Your task to perform on an android device: What's on my calendar tomorrow? Image 0: 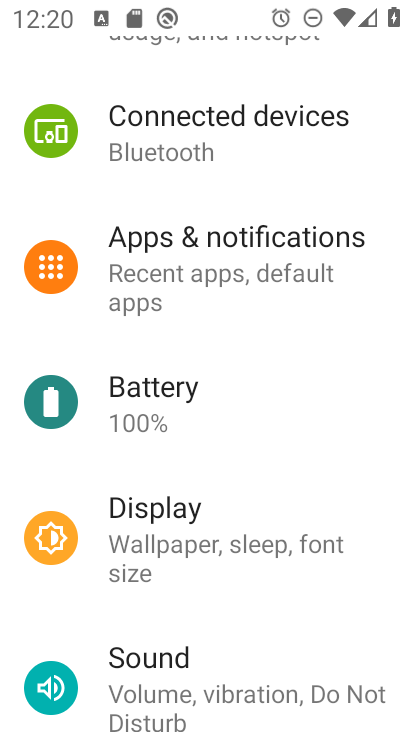
Step 0: press home button
Your task to perform on an android device: What's on my calendar tomorrow? Image 1: 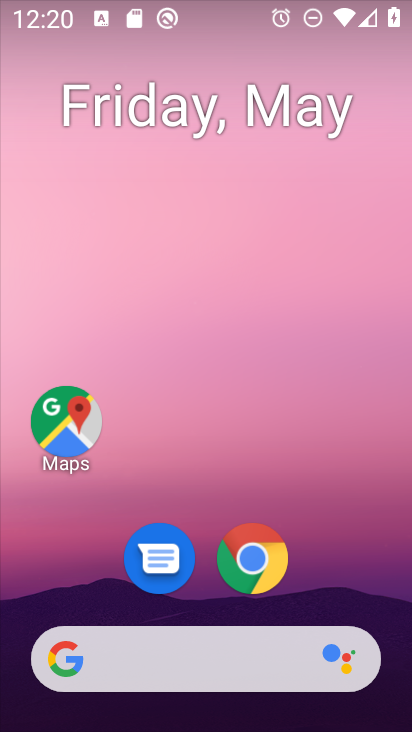
Step 1: drag from (387, 605) to (322, 58)
Your task to perform on an android device: What's on my calendar tomorrow? Image 2: 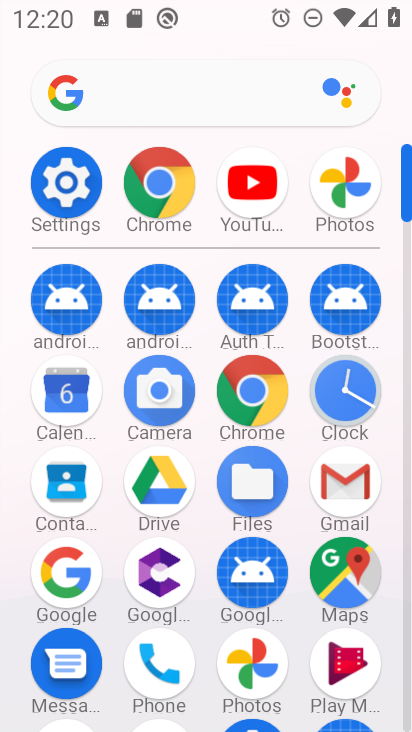
Step 2: click (65, 393)
Your task to perform on an android device: What's on my calendar tomorrow? Image 3: 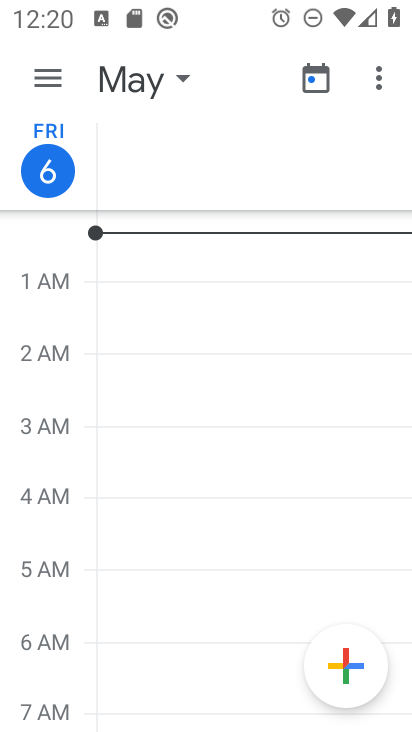
Step 3: click (45, 74)
Your task to perform on an android device: What's on my calendar tomorrow? Image 4: 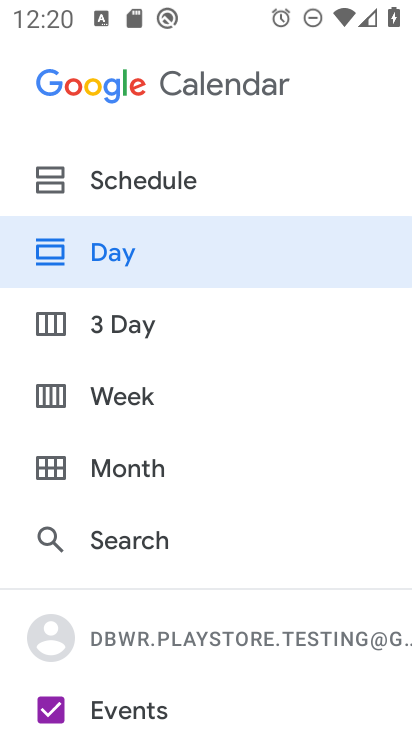
Step 4: click (116, 248)
Your task to perform on an android device: What's on my calendar tomorrow? Image 5: 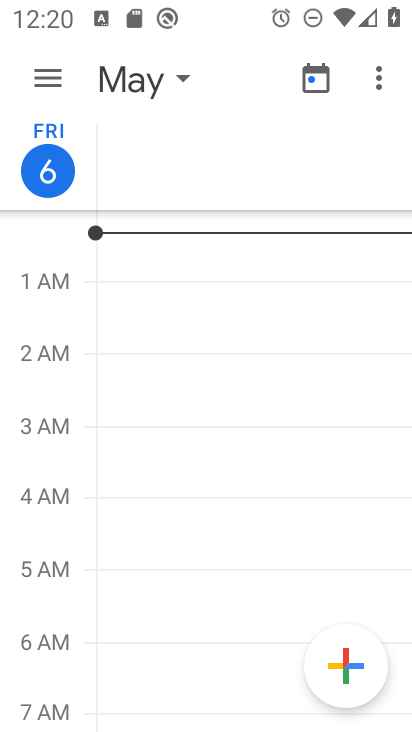
Step 5: task complete